Your task to perform on an android device: Open settings on Google Maps Image 0: 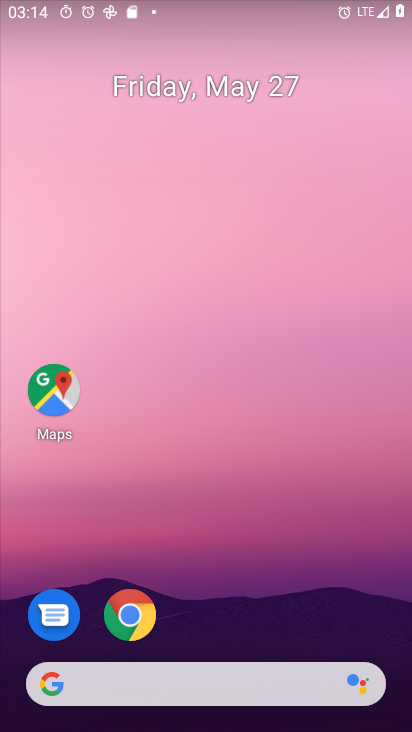
Step 0: drag from (330, 618) to (322, 285)
Your task to perform on an android device: Open settings on Google Maps Image 1: 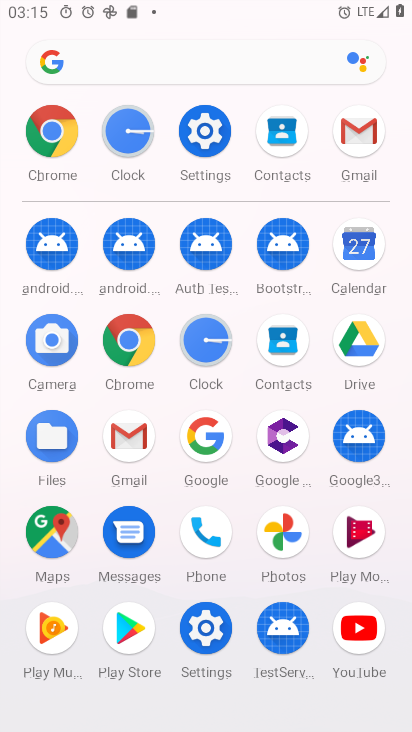
Step 1: click (65, 547)
Your task to perform on an android device: Open settings on Google Maps Image 2: 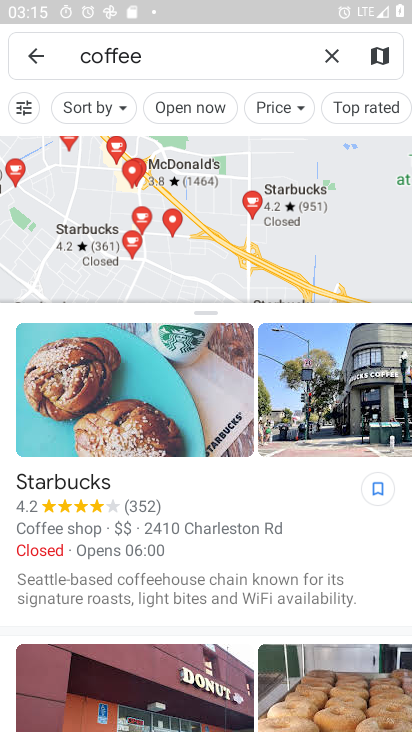
Step 2: click (43, 58)
Your task to perform on an android device: Open settings on Google Maps Image 3: 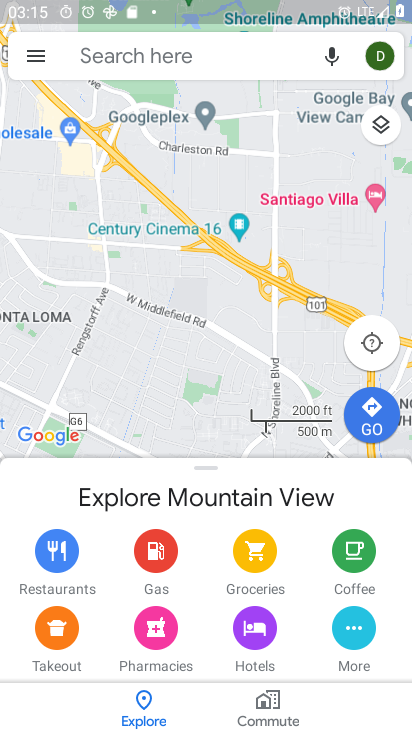
Step 3: click (34, 58)
Your task to perform on an android device: Open settings on Google Maps Image 4: 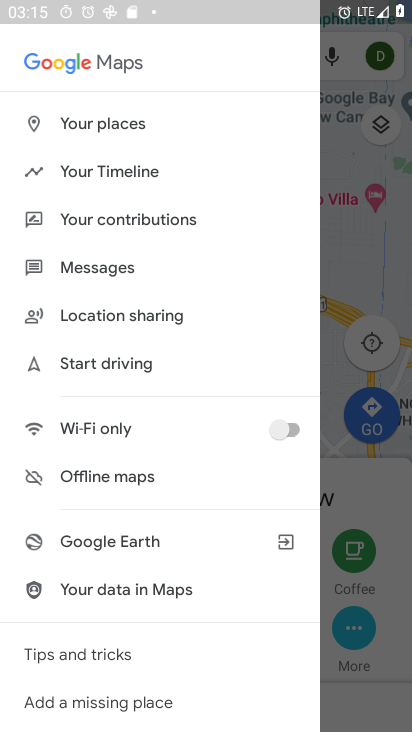
Step 4: drag from (232, 488) to (225, 371)
Your task to perform on an android device: Open settings on Google Maps Image 5: 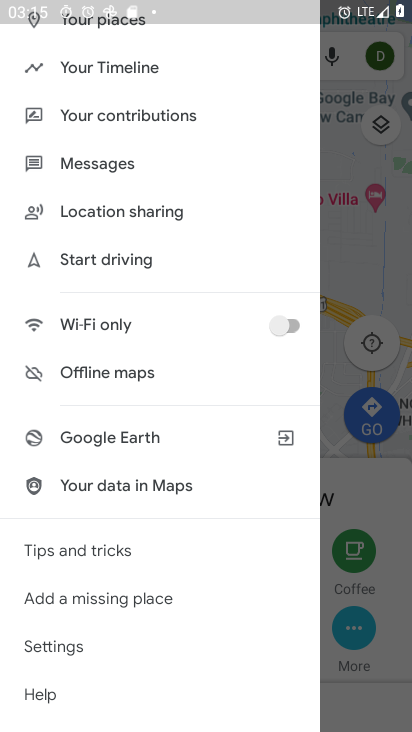
Step 5: drag from (222, 552) to (227, 412)
Your task to perform on an android device: Open settings on Google Maps Image 6: 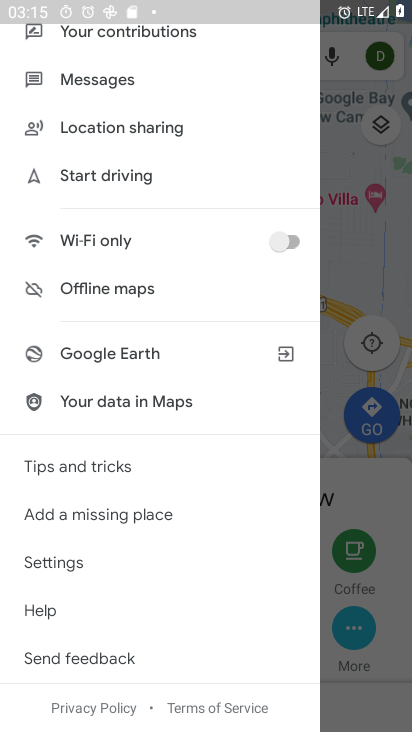
Step 6: click (88, 564)
Your task to perform on an android device: Open settings on Google Maps Image 7: 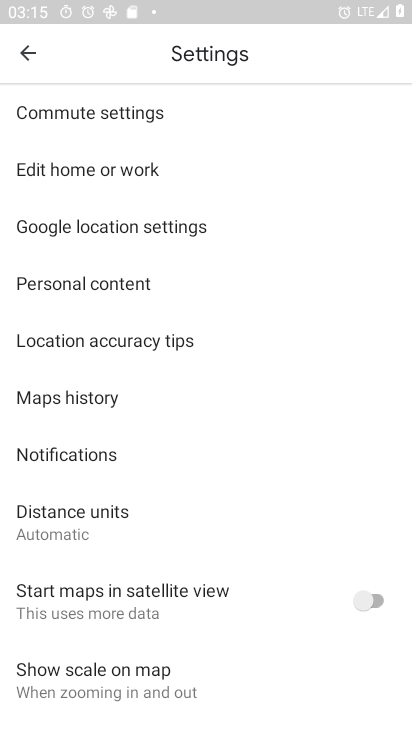
Step 7: task complete